Your task to perform on an android device: turn vacation reply on in the gmail app Image 0: 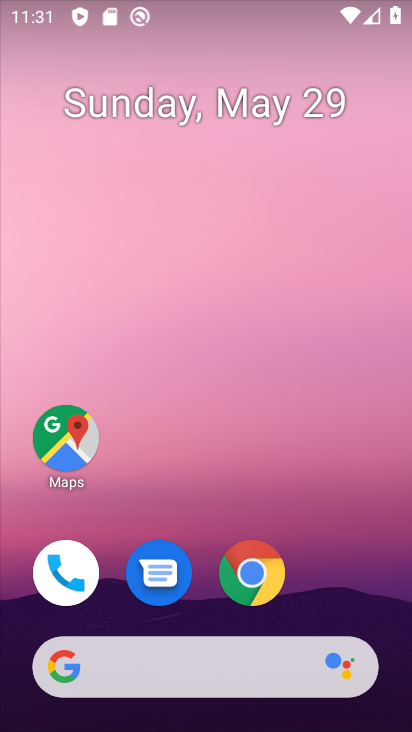
Step 0: drag from (354, 610) to (359, 180)
Your task to perform on an android device: turn vacation reply on in the gmail app Image 1: 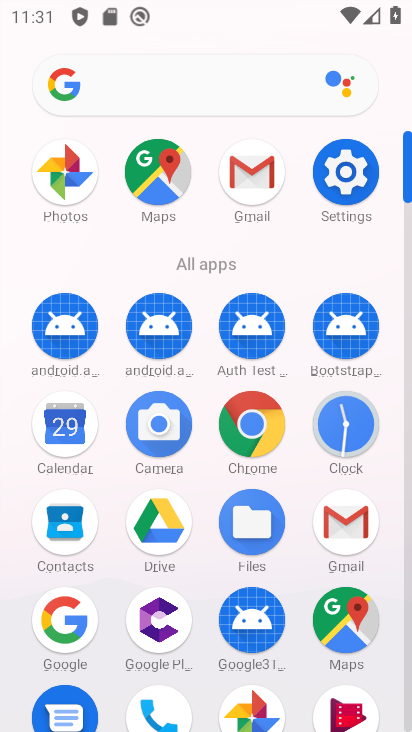
Step 1: click (251, 160)
Your task to perform on an android device: turn vacation reply on in the gmail app Image 2: 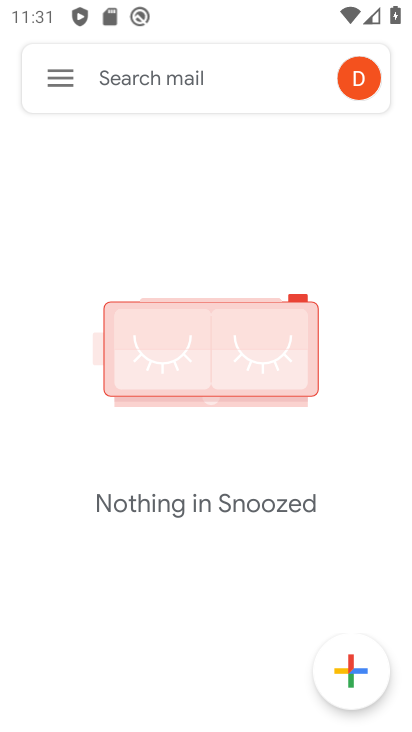
Step 2: click (64, 78)
Your task to perform on an android device: turn vacation reply on in the gmail app Image 3: 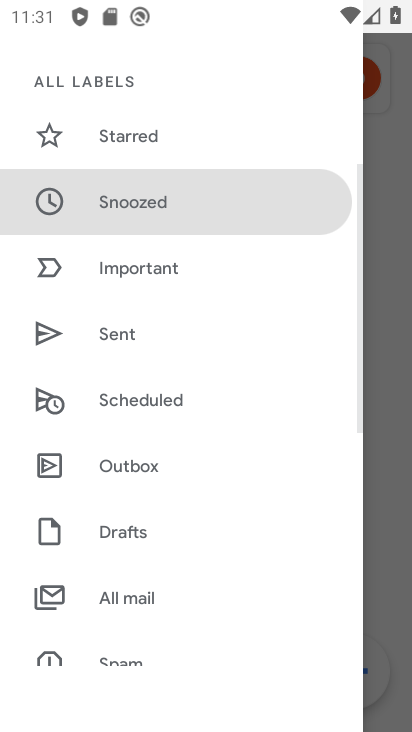
Step 3: drag from (246, 655) to (258, 123)
Your task to perform on an android device: turn vacation reply on in the gmail app Image 4: 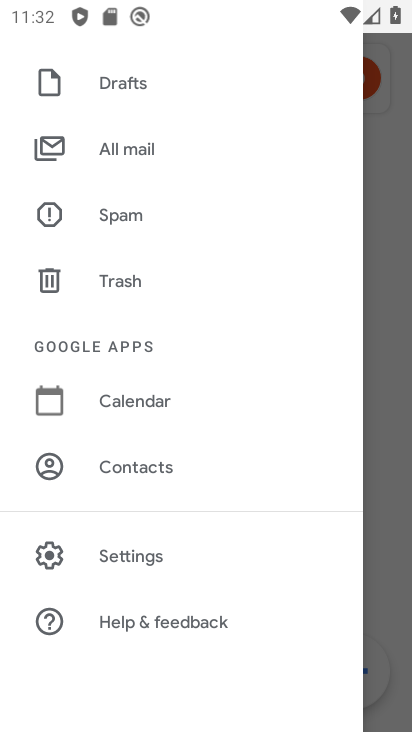
Step 4: click (129, 557)
Your task to perform on an android device: turn vacation reply on in the gmail app Image 5: 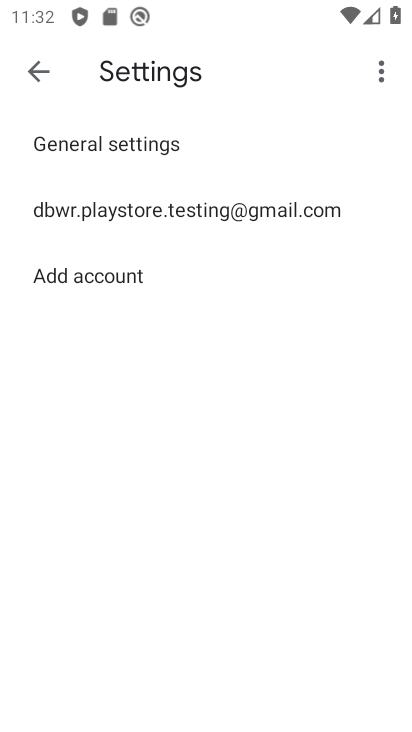
Step 5: click (189, 205)
Your task to perform on an android device: turn vacation reply on in the gmail app Image 6: 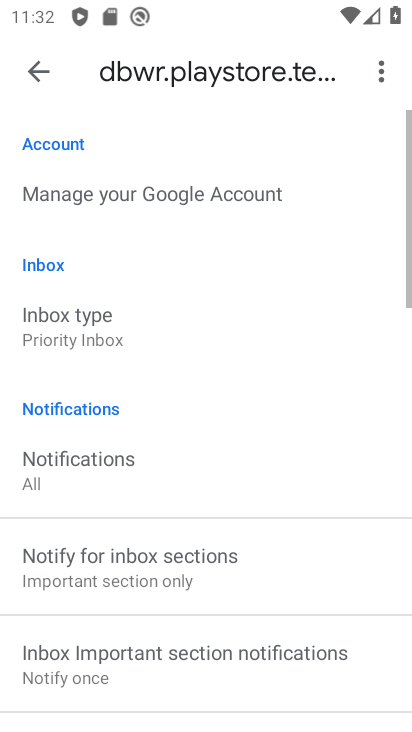
Step 6: drag from (312, 627) to (275, 128)
Your task to perform on an android device: turn vacation reply on in the gmail app Image 7: 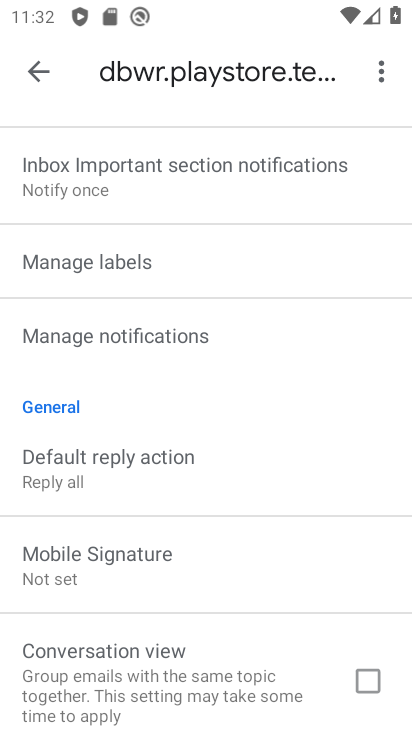
Step 7: drag from (295, 621) to (296, 152)
Your task to perform on an android device: turn vacation reply on in the gmail app Image 8: 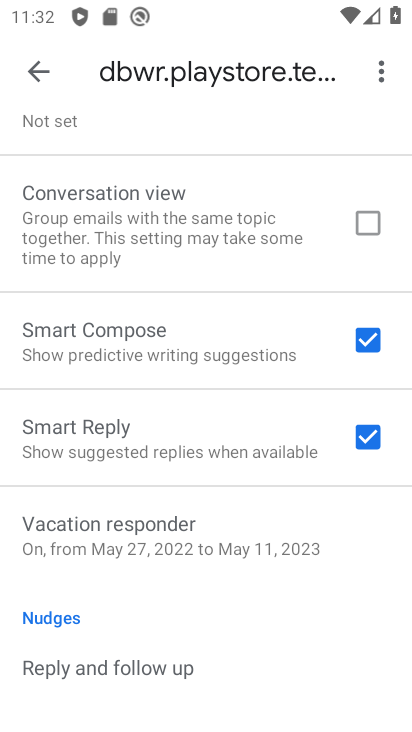
Step 8: click (171, 546)
Your task to perform on an android device: turn vacation reply on in the gmail app Image 9: 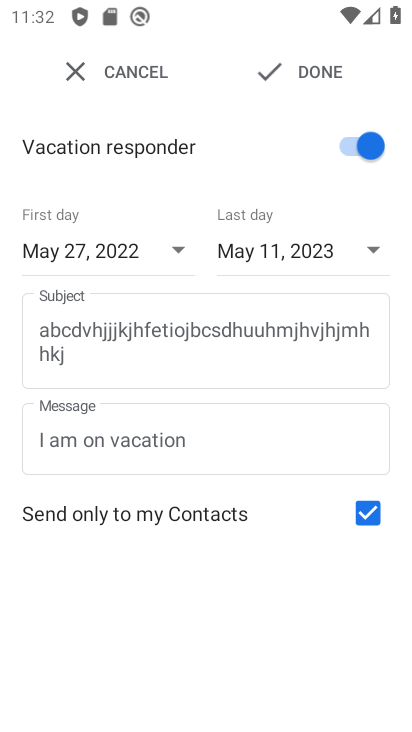
Step 9: task complete